Your task to perform on an android device: Show me popular videos on Youtube Image 0: 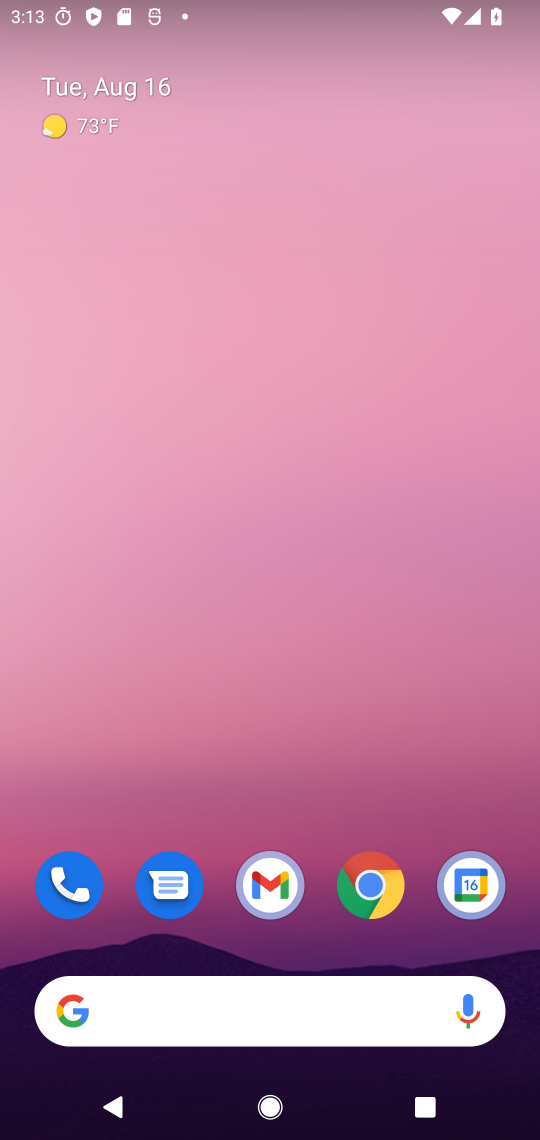
Step 0: drag from (312, 1039) to (263, 238)
Your task to perform on an android device: Show me popular videos on Youtube Image 1: 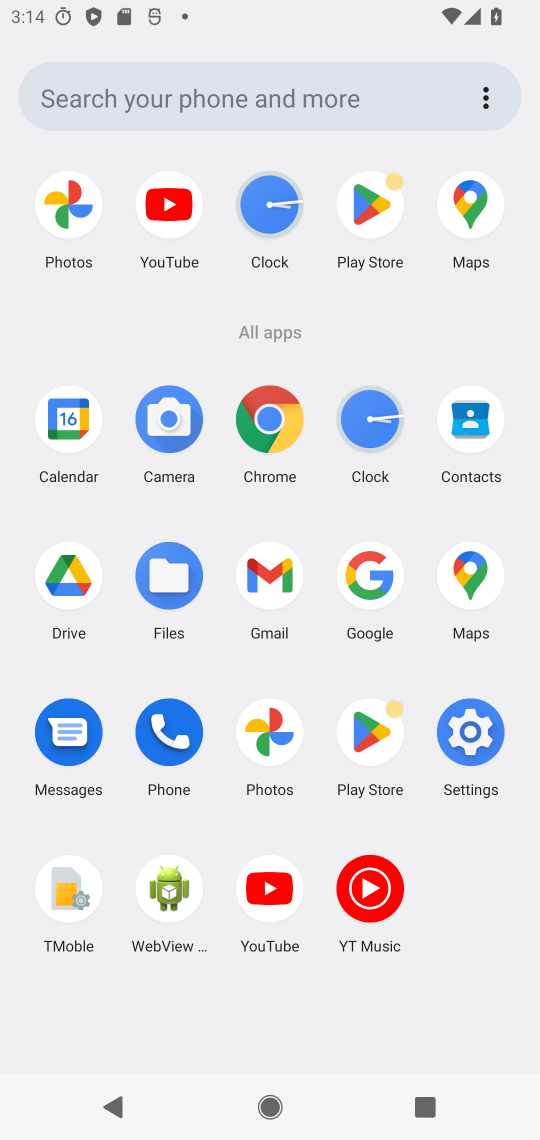
Step 1: click (266, 890)
Your task to perform on an android device: Show me popular videos on Youtube Image 2: 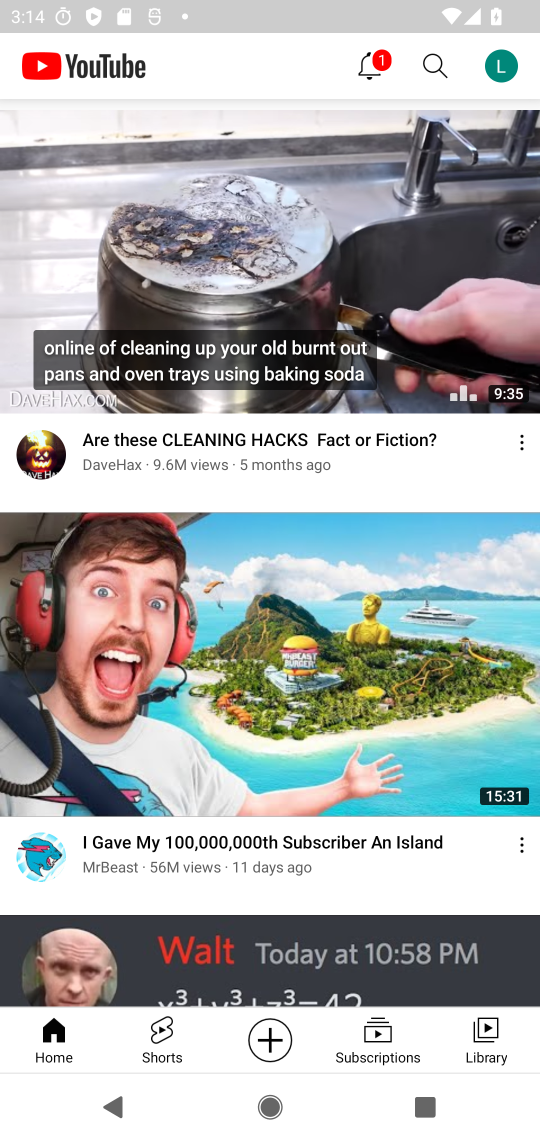
Step 2: click (447, 51)
Your task to perform on an android device: Show me popular videos on Youtube Image 3: 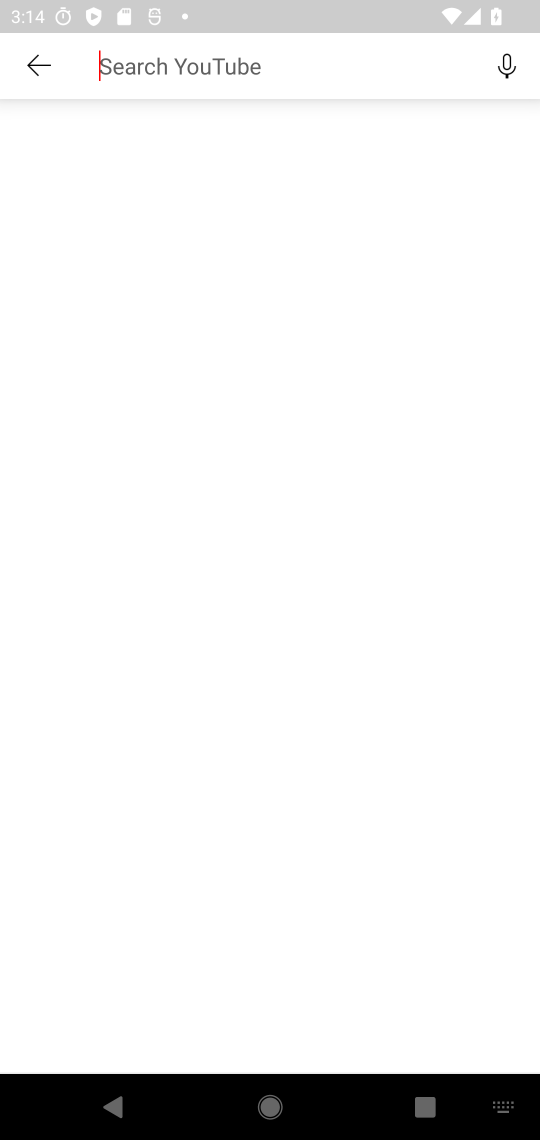
Step 3: type "delhi food "
Your task to perform on an android device: Show me popular videos on Youtube Image 4: 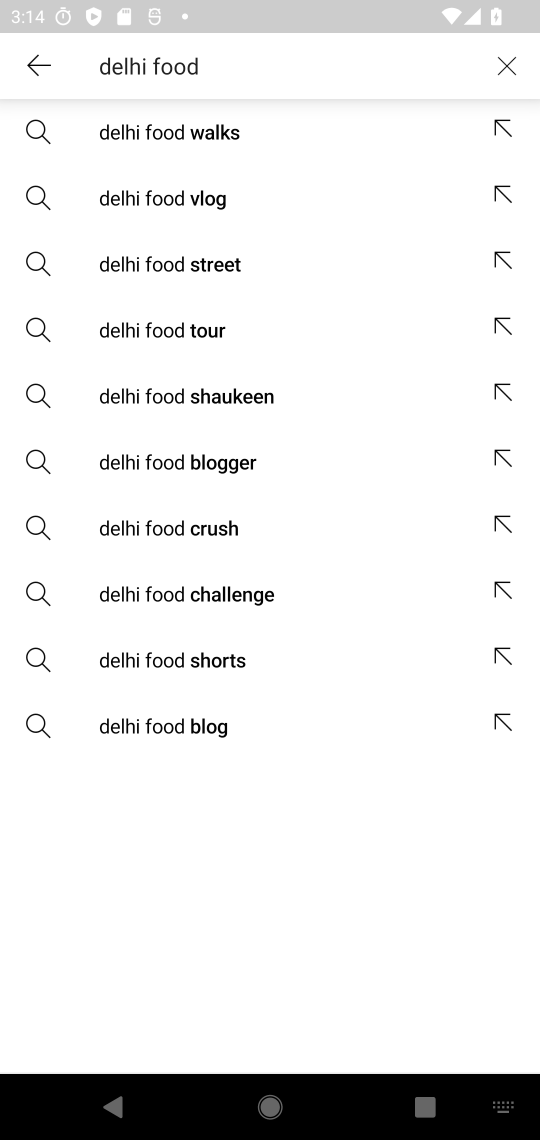
Step 4: click (195, 189)
Your task to perform on an android device: Show me popular videos on Youtube Image 5: 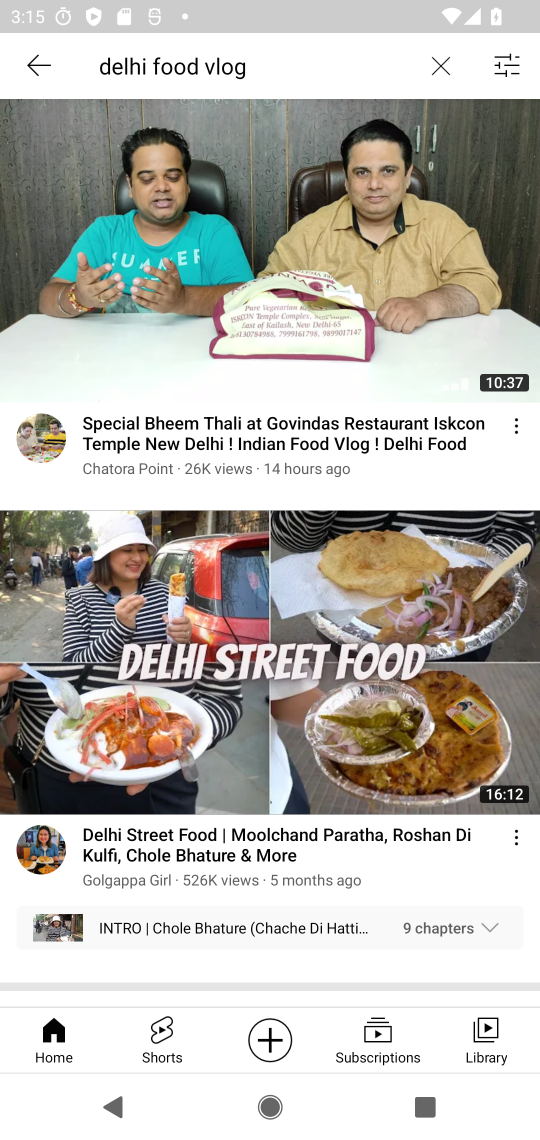
Step 5: task complete